Your task to perform on an android device: toggle show notifications on the lock screen Image 0: 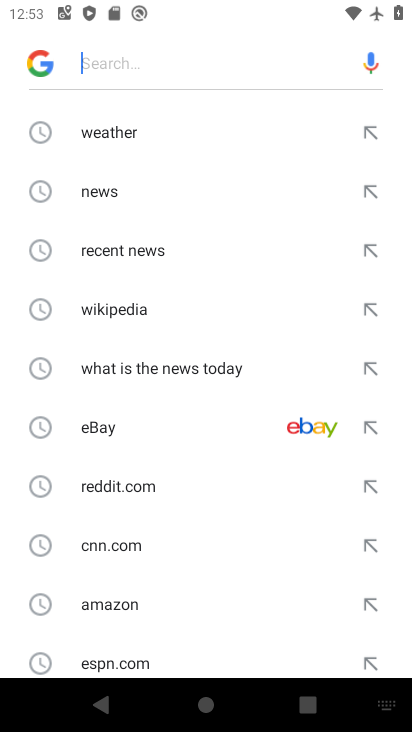
Step 0: press home button
Your task to perform on an android device: toggle show notifications on the lock screen Image 1: 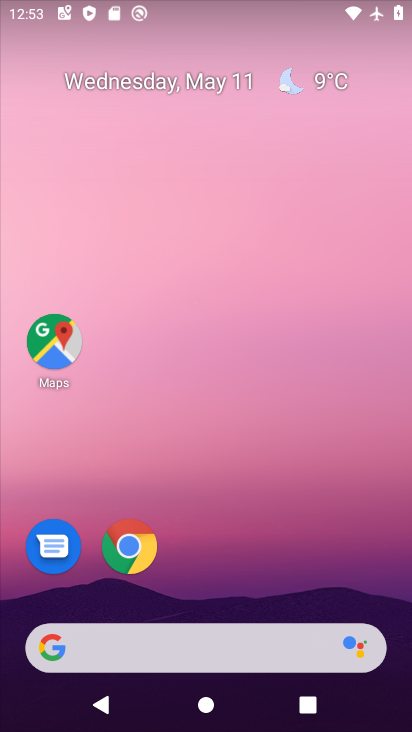
Step 1: drag from (372, 692) to (256, 0)
Your task to perform on an android device: toggle show notifications on the lock screen Image 2: 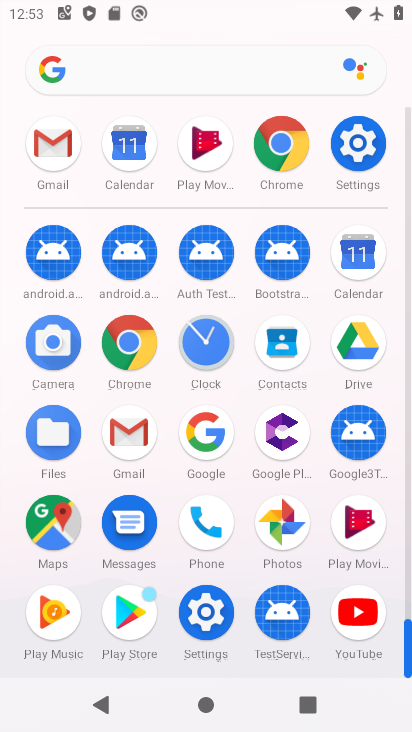
Step 2: click (372, 144)
Your task to perform on an android device: toggle show notifications on the lock screen Image 3: 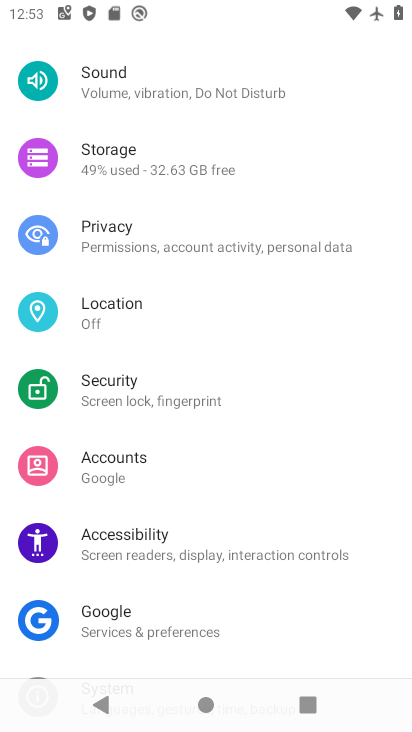
Step 3: drag from (273, 546) to (243, 188)
Your task to perform on an android device: toggle show notifications on the lock screen Image 4: 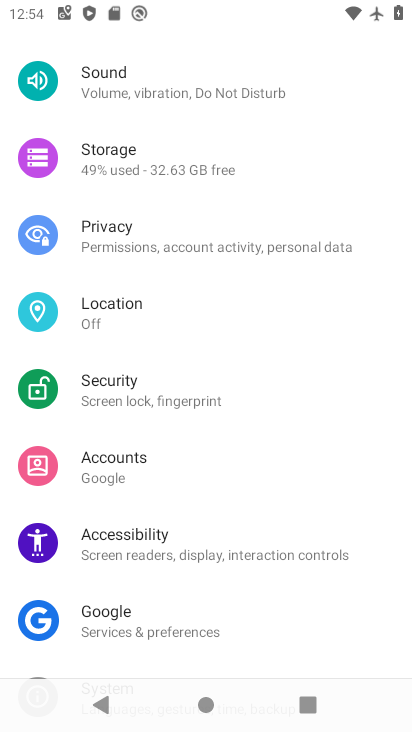
Step 4: drag from (225, 149) to (283, 663)
Your task to perform on an android device: toggle show notifications on the lock screen Image 5: 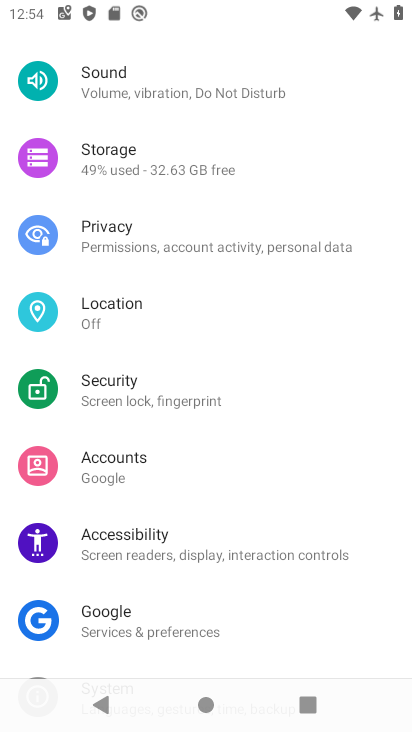
Step 5: drag from (186, 131) to (254, 622)
Your task to perform on an android device: toggle show notifications on the lock screen Image 6: 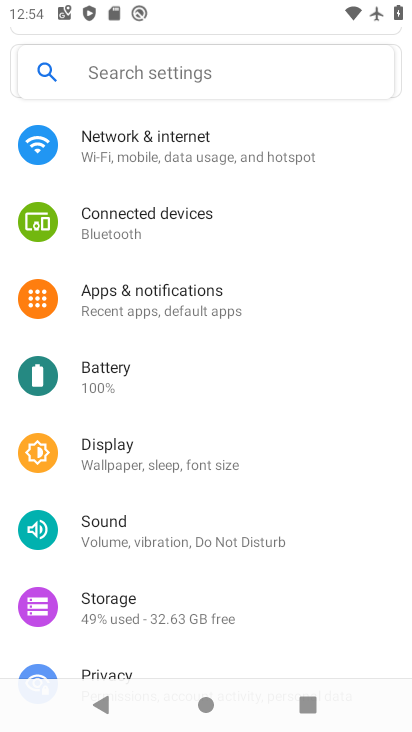
Step 6: click (239, 308)
Your task to perform on an android device: toggle show notifications on the lock screen Image 7: 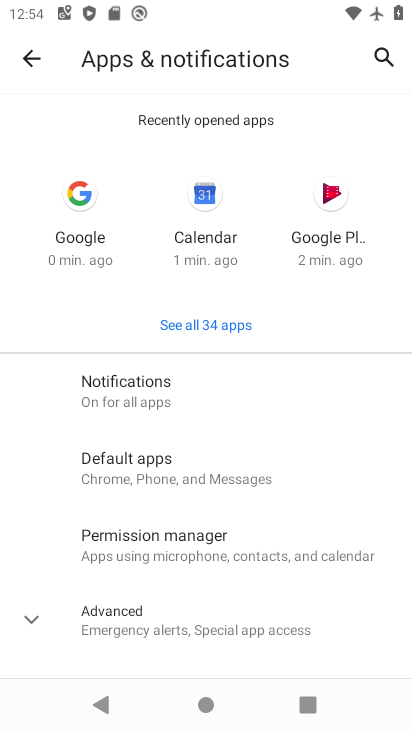
Step 7: click (200, 386)
Your task to perform on an android device: toggle show notifications on the lock screen Image 8: 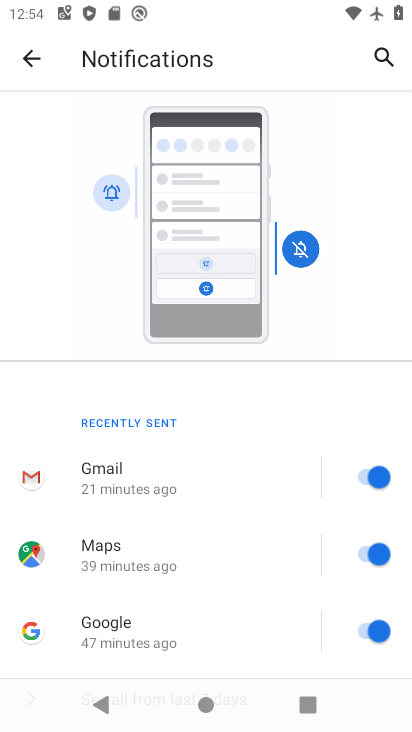
Step 8: drag from (258, 663) to (259, 183)
Your task to perform on an android device: toggle show notifications on the lock screen Image 9: 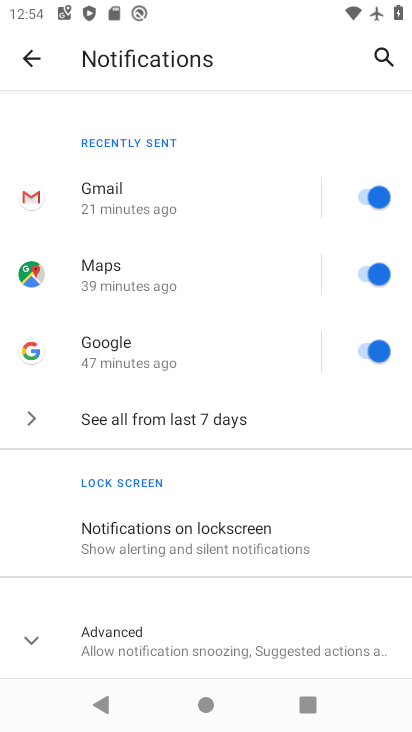
Step 9: click (276, 537)
Your task to perform on an android device: toggle show notifications on the lock screen Image 10: 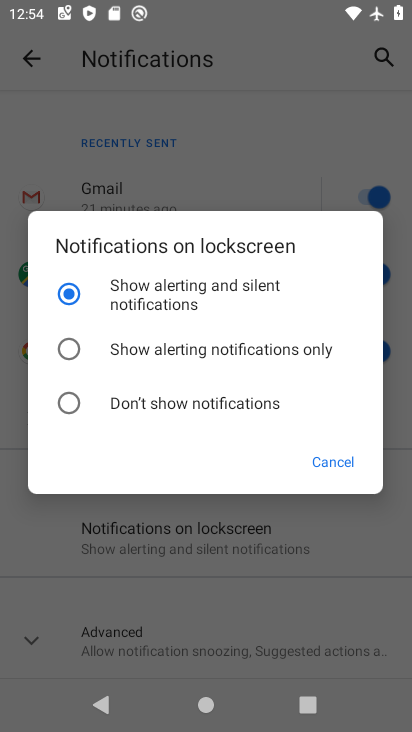
Step 10: click (205, 347)
Your task to perform on an android device: toggle show notifications on the lock screen Image 11: 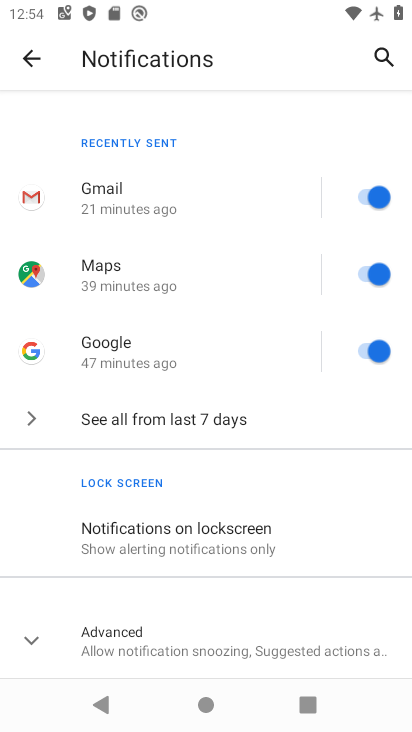
Step 11: click (183, 527)
Your task to perform on an android device: toggle show notifications on the lock screen Image 12: 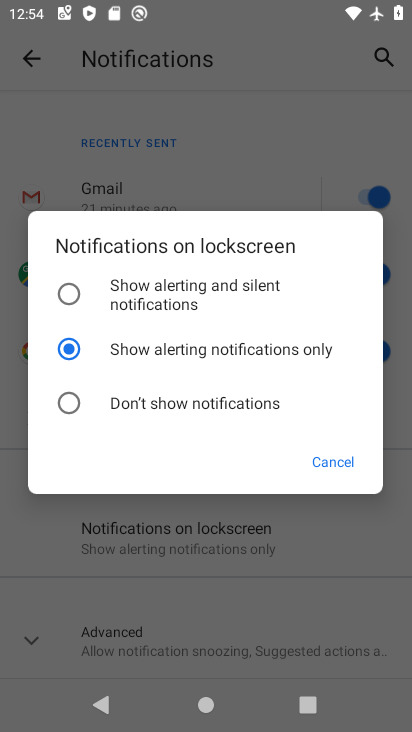
Step 12: click (78, 398)
Your task to perform on an android device: toggle show notifications on the lock screen Image 13: 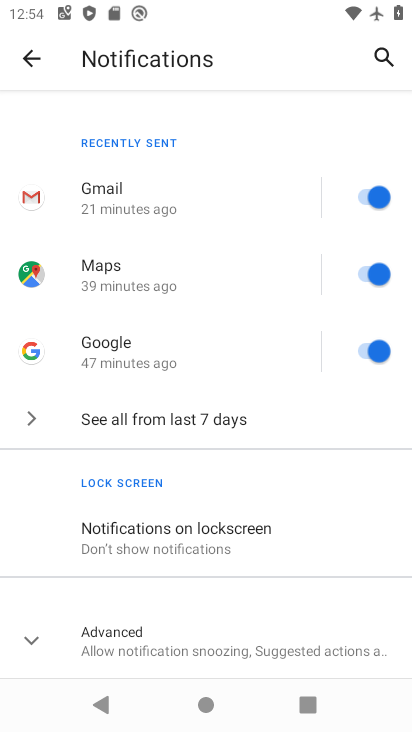
Step 13: task complete